Your task to perform on an android device: Open the calendar app, open the side menu, and click the "Day" option Image 0: 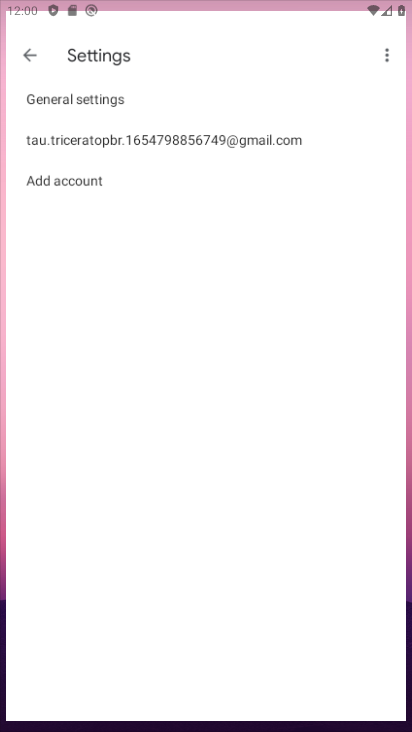
Step 0: press home button
Your task to perform on an android device: Open the calendar app, open the side menu, and click the "Day" option Image 1: 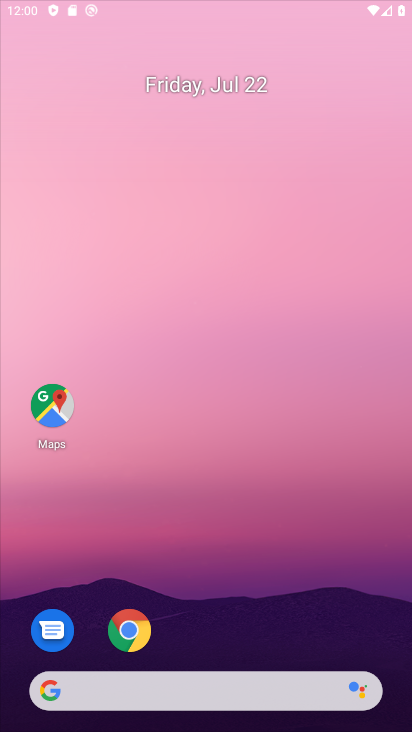
Step 1: drag from (240, 633) to (223, 101)
Your task to perform on an android device: Open the calendar app, open the side menu, and click the "Day" option Image 2: 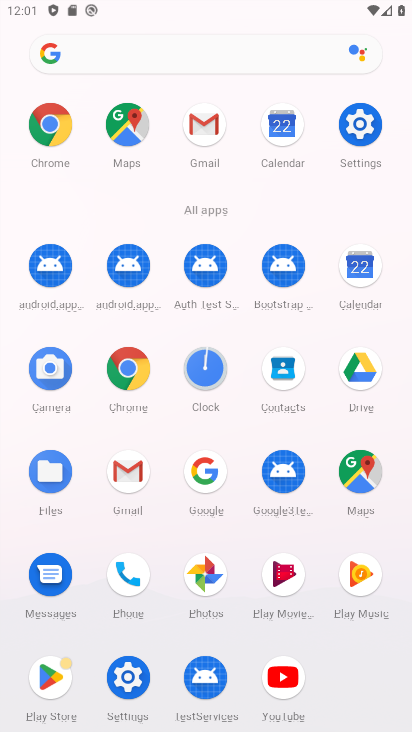
Step 2: click (280, 133)
Your task to perform on an android device: Open the calendar app, open the side menu, and click the "Day" option Image 3: 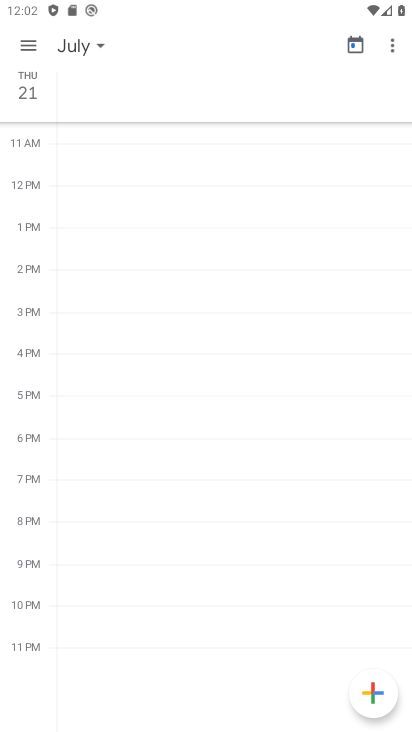
Step 3: click (20, 46)
Your task to perform on an android device: Open the calendar app, open the side menu, and click the "Day" option Image 4: 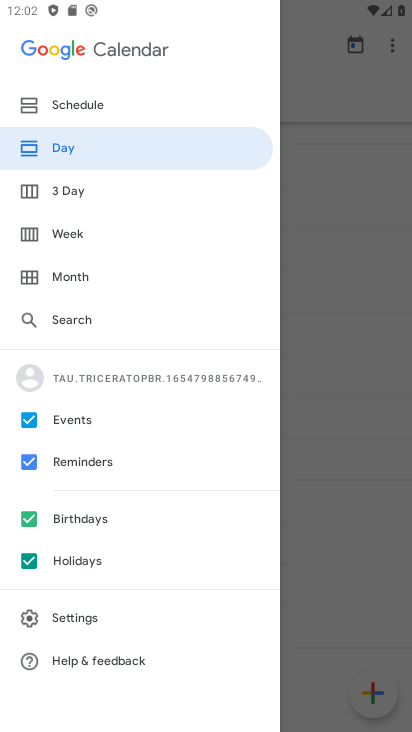
Step 4: click (67, 140)
Your task to perform on an android device: Open the calendar app, open the side menu, and click the "Day" option Image 5: 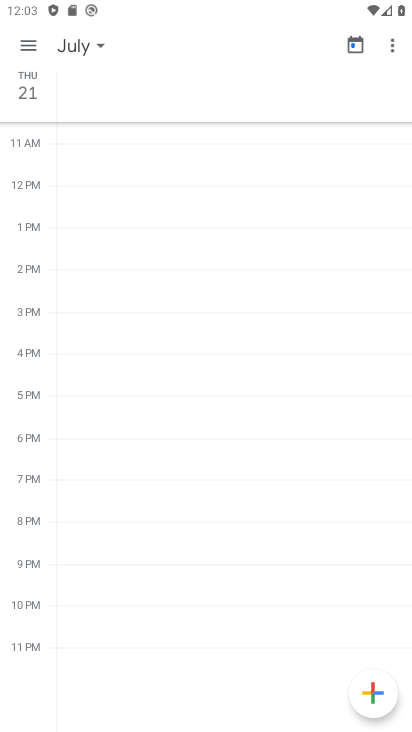
Step 5: task complete